Your task to perform on an android device: Open location settings Image 0: 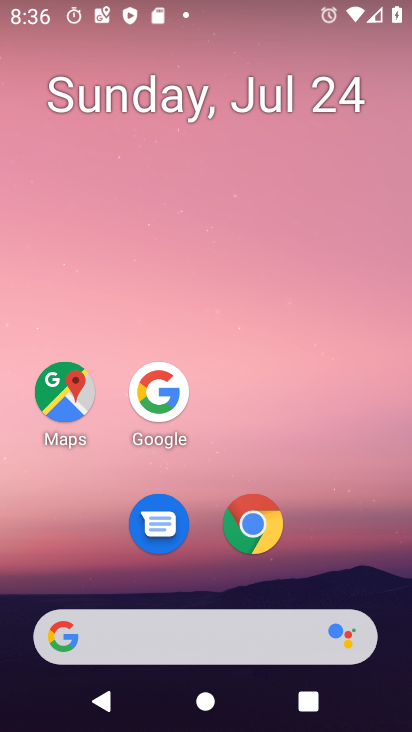
Step 0: press home button
Your task to perform on an android device: Open location settings Image 1: 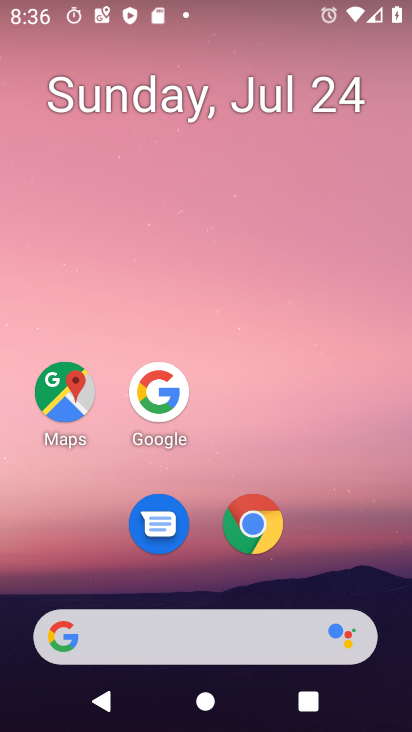
Step 1: drag from (213, 652) to (383, 42)
Your task to perform on an android device: Open location settings Image 2: 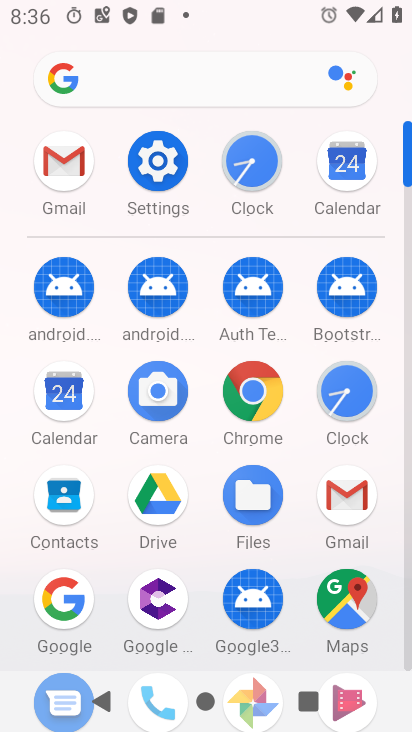
Step 2: click (166, 161)
Your task to perform on an android device: Open location settings Image 3: 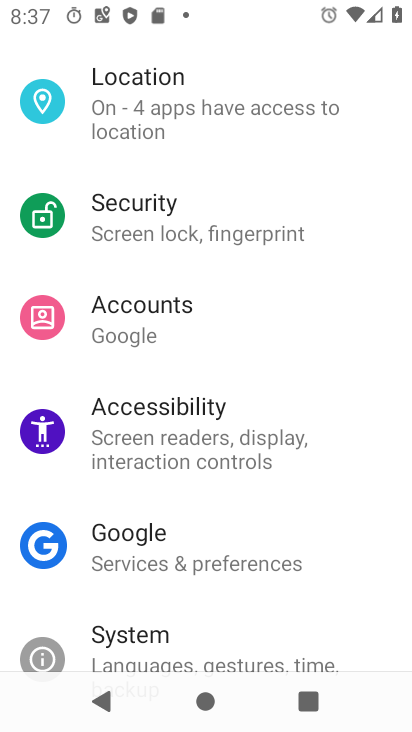
Step 3: click (164, 101)
Your task to perform on an android device: Open location settings Image 4: 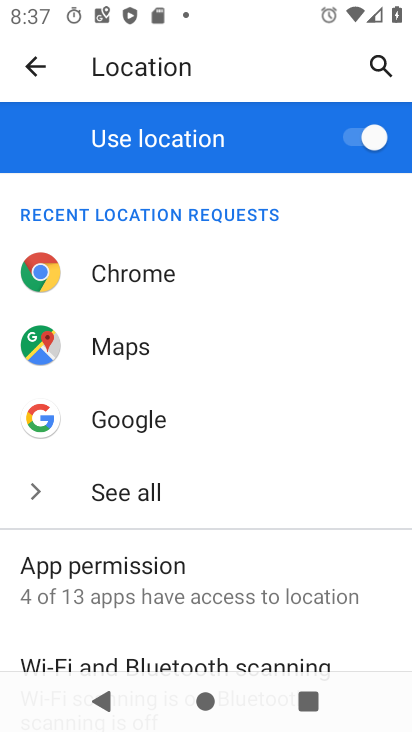
Step 4: task complete